Your task to perform on an android device: toggle location history Image 0: 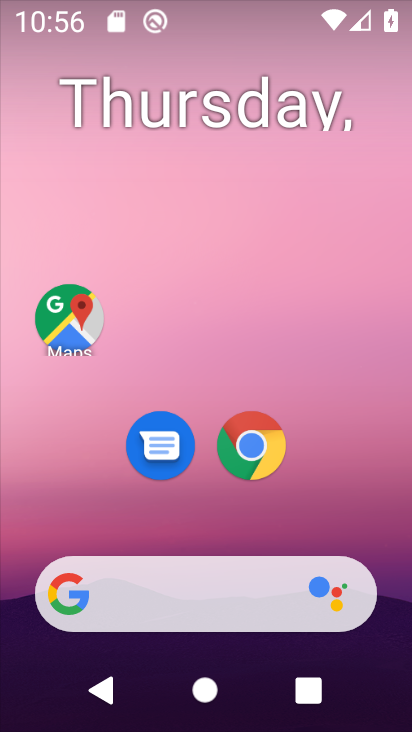
Step 0: drag from (337, 485) to (289, 78)
Your task to perform on an android device: toggle location history Image 1: 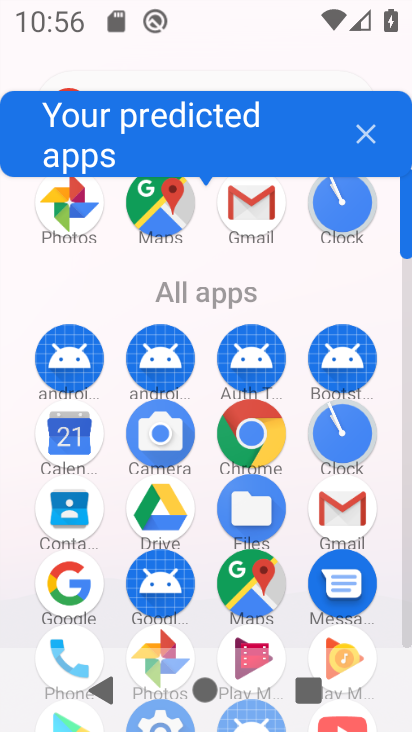
Step 1: drag from (203, 621) to (287, 231)
Your task to perform on an android device: toggle location history Image 2: 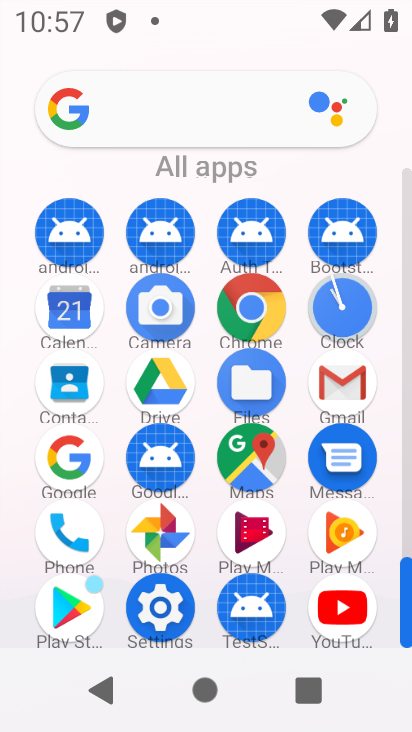
Step 2: click (174, 612)
Your task to perform on an android device: toggle location history Image 3: 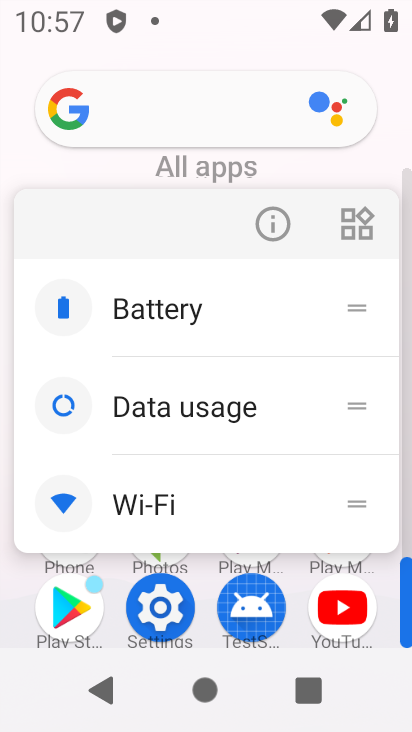
Step 3: click (152, 618)
Your task to perform on an android device: toggle location history Image 4: 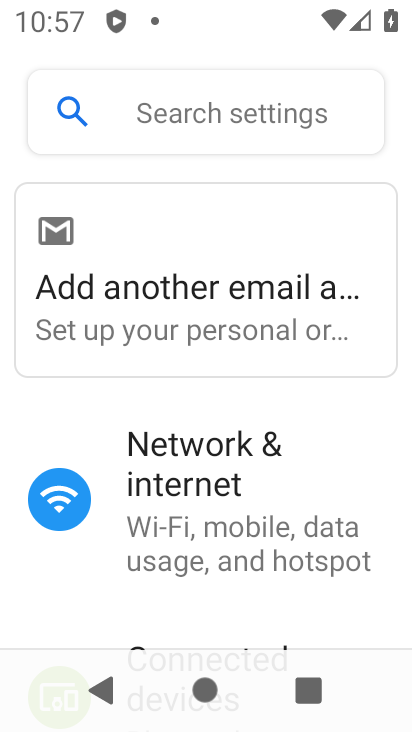
Step 4: drag from (273, 569) to (361, 211)
Your task to perform on an android device: toggle location history Image 5: 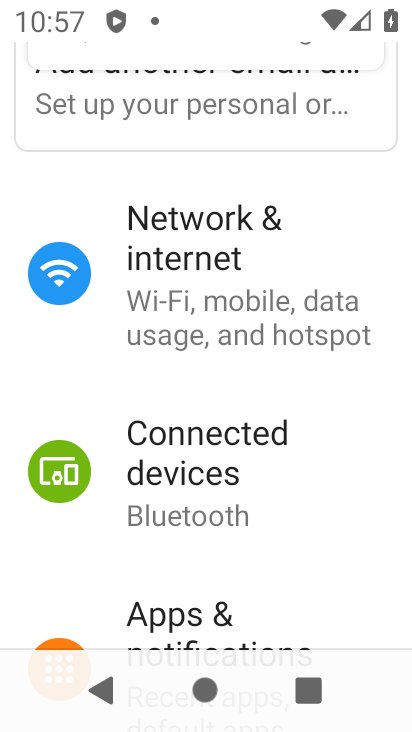
Step 5: drag from (292, 481) to (328, 195)
Your task to perform on an android device: toggle location history Image 6: 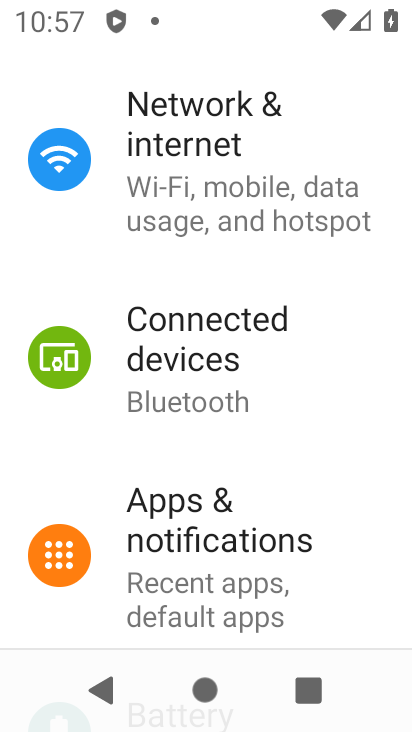
Step 6: drag from (257, 525) to (271, 220)
Your task to perform on an android device: toggle location history Image 7: 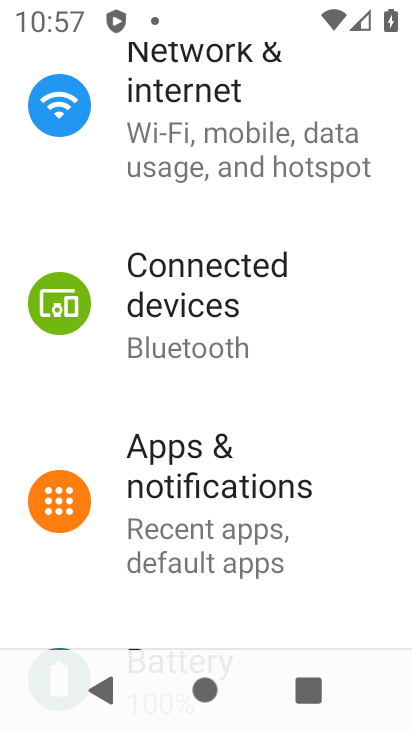
Step 7: drag from (241, 536) to (399, 245)
Your task to perform on an android device: toggle location history Image 8: 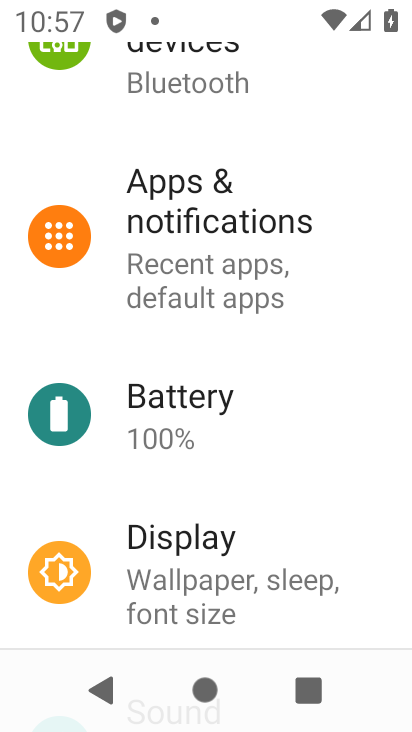
Step 8: drag from (240, 518) to (290, 201)
Your task to perform on an android device: toggle location history Image 9: 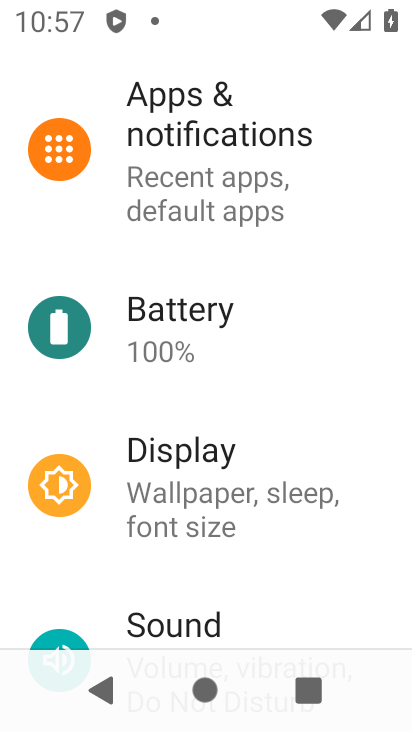
Step 9: drag from (241, 599) to (284, 106)
Your task to perform on an android device: toggle location history Image 10: 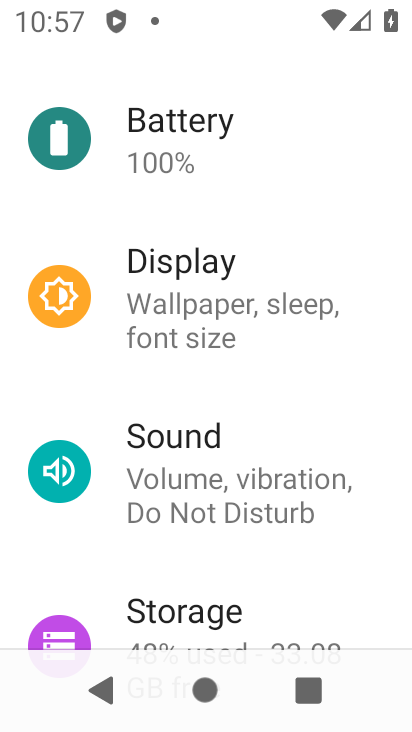
Step 10: drag from (181, 543) to (334, 135)
Your task to perform on an android device: toggle location history Image 11: 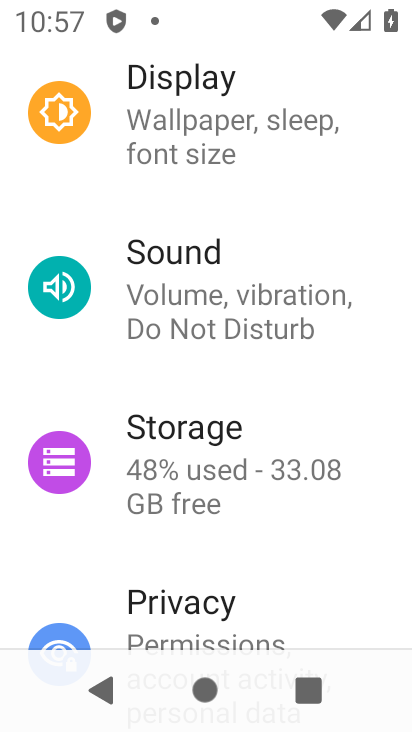
Step 11: drag from (256, 493) to (273, 223)
Your task to perform on an android device: toggle location history Image 12: 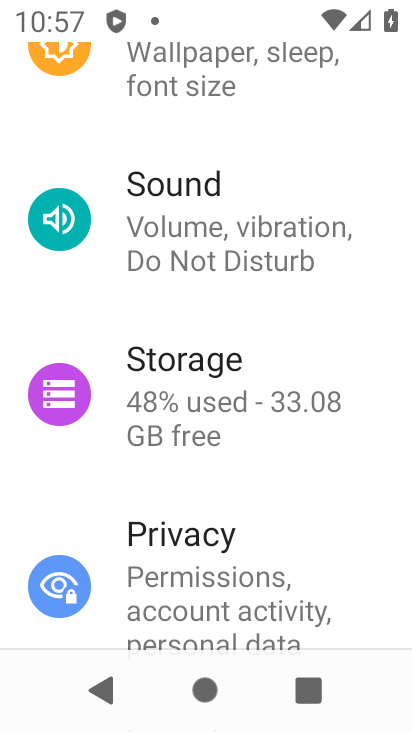
Step 12: drag from (273, 223) to (282, 613)
Your task to perform on an android device: toggle location history Image 13: 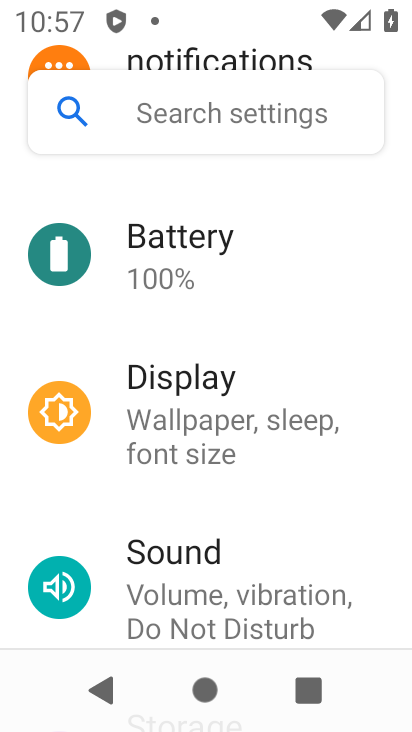
Step 13: drag from (254, 279) to (264, 618)
Your task to perform on an android device: toggle location history Image 14: 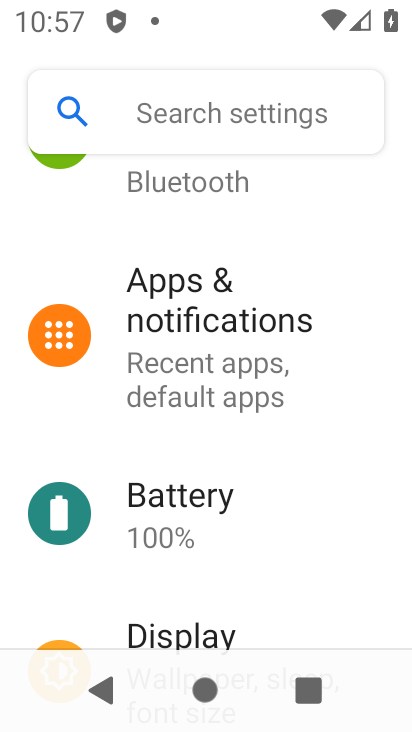
Step 14: drag from (266, 613) to (319, 106)
Your task to perform on an android device: toggle location history Image 15: 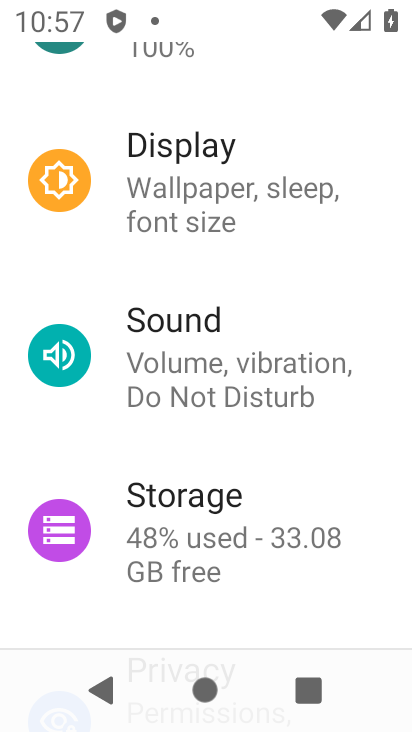
Step 15: drag from (241, 539) to (319, 184)
Your task to perform on an android device: toggle location history Image 16: 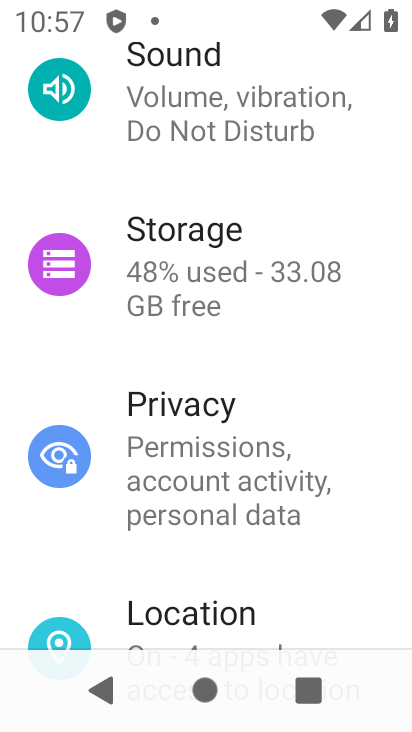
Step 16: drag from (252, 550) to (288, 380)
Your task to perform on an android device: toggle location history Image 17: 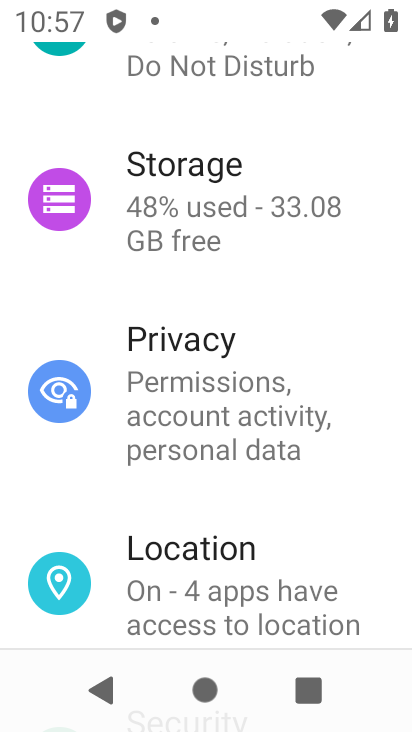
Step 17: click (201, 570)
Your task to perform on an android device: toggle location history Image 18: 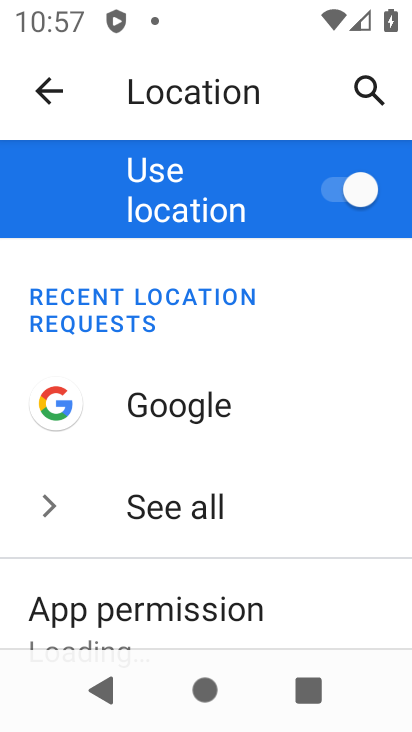
Step 18: drag from (320, 526) to (322, 42)
Your task to perform on an android device: toggle location history Image 19: 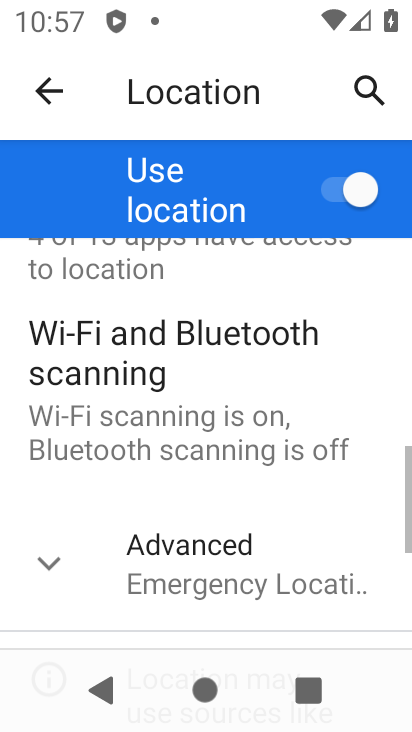
Step 19: click (209, 549)
Your task to perform on an android device: toggle location history Image 20: 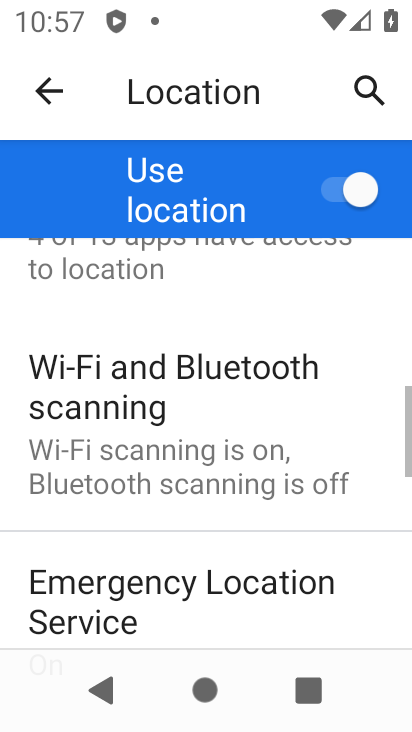
Step 20: drag from (337, 413) to (299, 98)
Your task to perform on an android device: toggle location history Image 21: 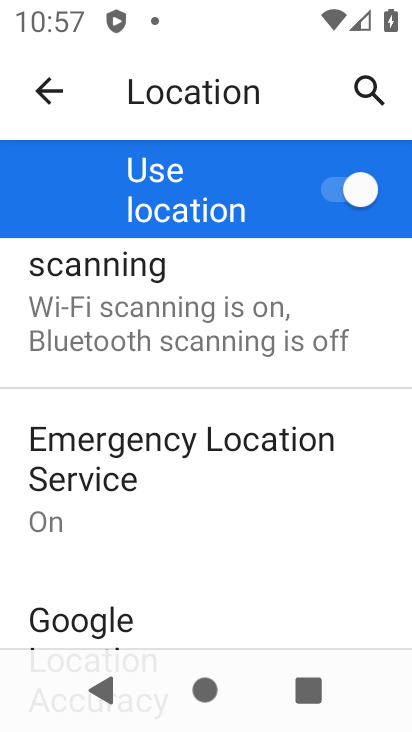
Step 21: drag from (230, 517) to (277, 202)
Your task to perform on an android device: toggle location history Image 22: 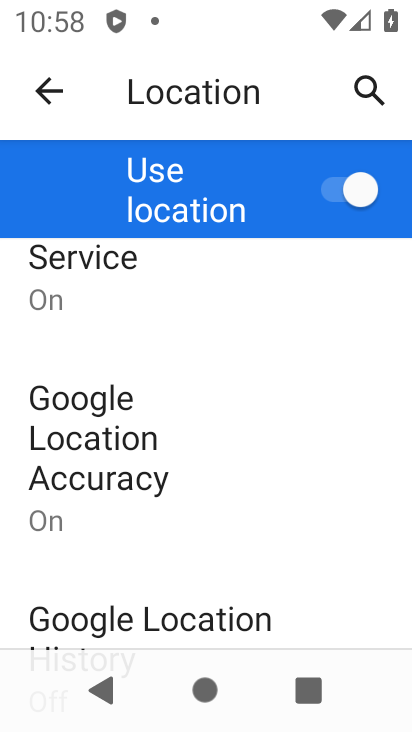
Step 22: click (198, 617)
Your task to perform on an android device: toggle location history Image 23: 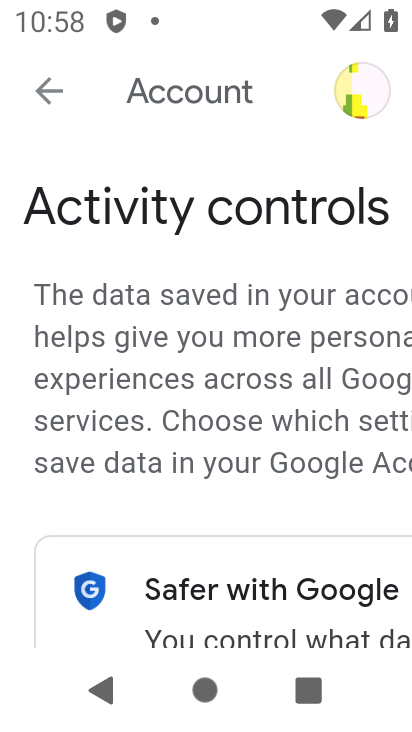
Step 23: drag from (205, 560) to (214, 113)
Your task to perform on an android device: toggle location history Image 24: 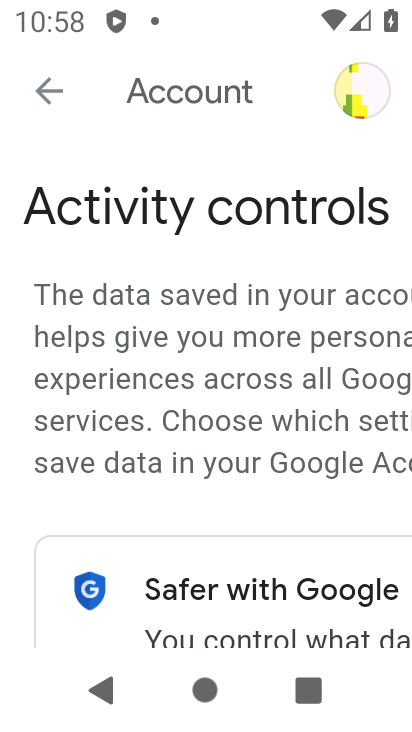
Step 24: drag from (272, 544) to (280, 194)
Your task to perform on an android device: toggle location history Image 25: 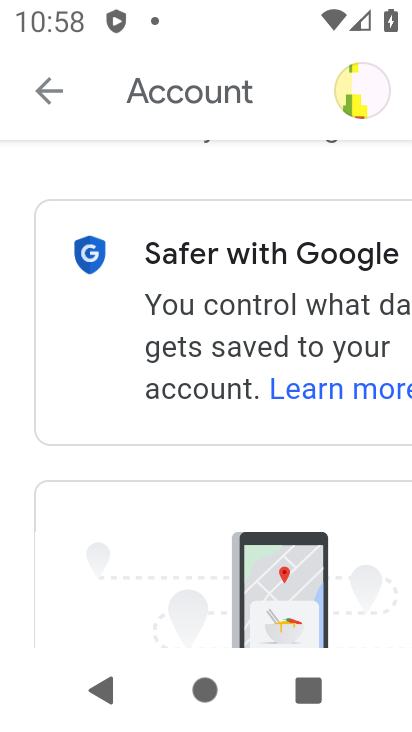
Step 25: drag from (196, 577) to (235, 202)
Your task to perform on an android device: toggle location history Image 26: 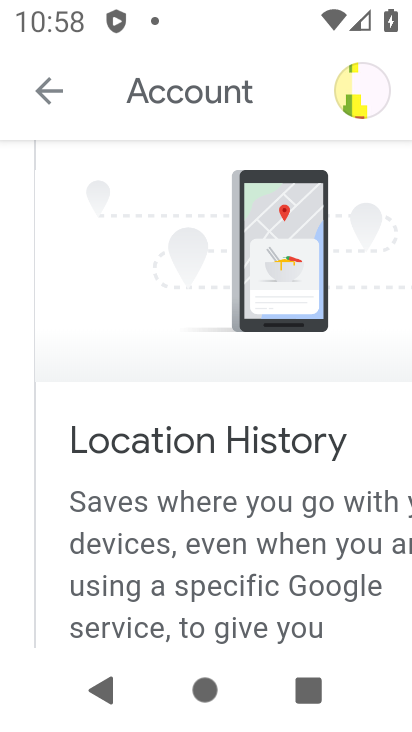
Step 26: drag from (233, 607) to (288, 264)
Your task to perform on an android device: toggle location history Image 27: 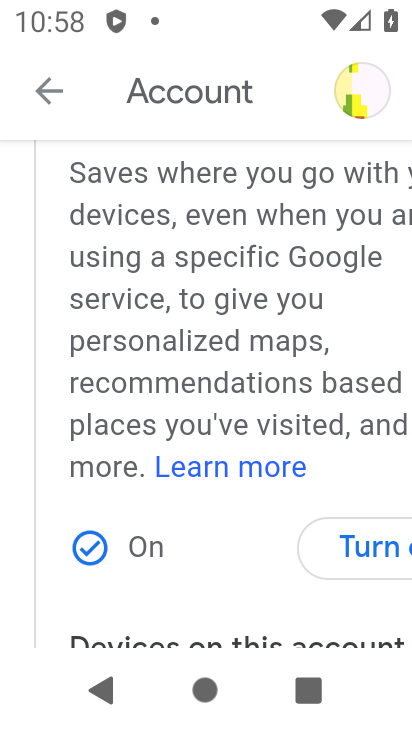
Step 27: click (379, 548)
Your task to perform on an android device: toggle location history Image 28: 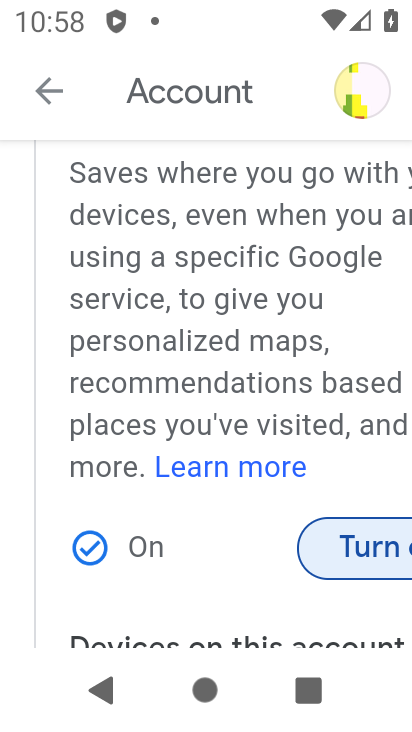
Step 28: click (379, 548)
Your task to perform on an android device: toggle location history Image 29: 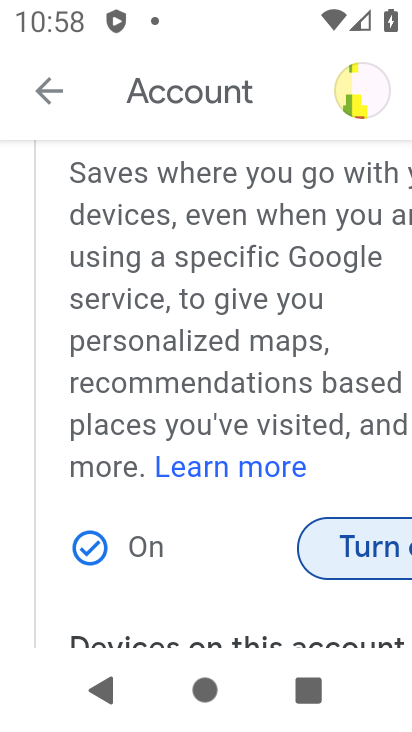
Step 29: click (379, 546)
Your task to perform on an android device: toggle location history Image 30: 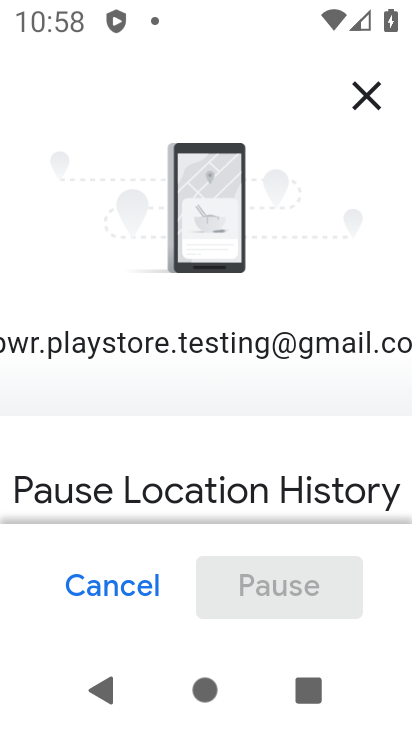
Step 30: drag from (331, 424) to (286, 6)
Your task to perform on an android device: toggle location history Image 31: 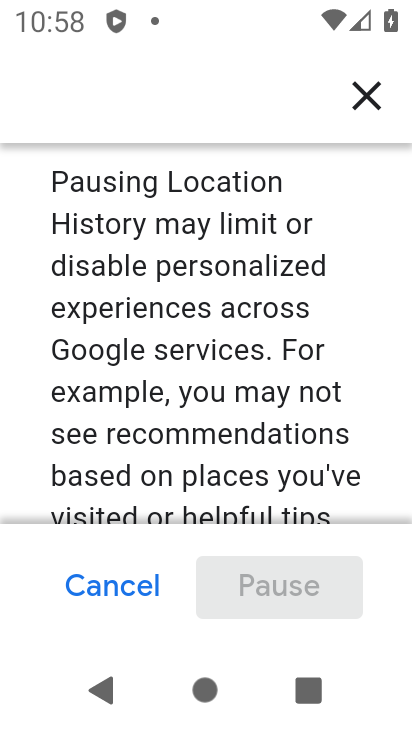
Step 31: drag from (246, 476) to (291, 82)
Your task to perform on an android device: toggle location history Image 32: 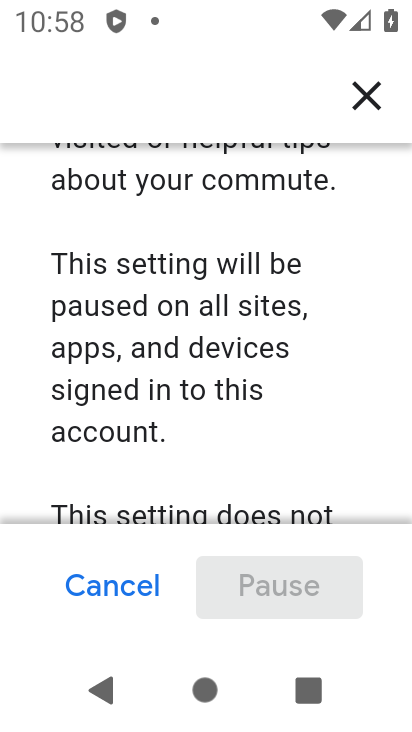
Step 32: drag from (249, 395) to (283, 68)
Your task to perform on an android device: toggle location history Image 33: 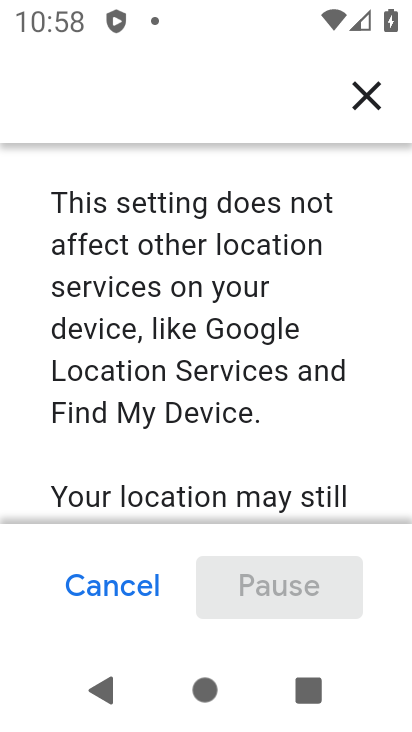
Step 33: drag from (263, 454) to (305, 91)
Your task to perform on an android device: toggle location history Image 34: 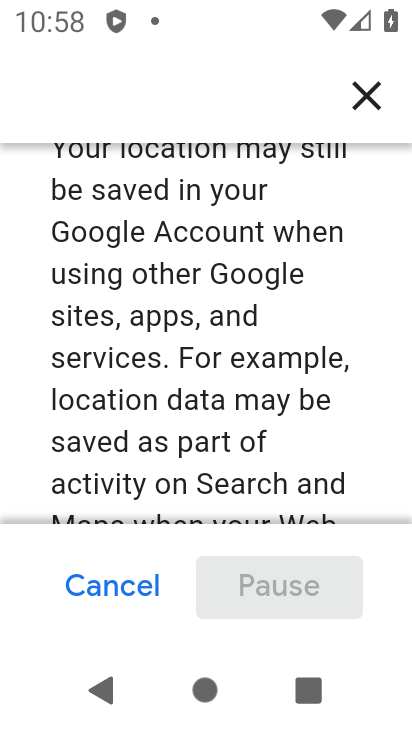
Step 34: drag from (256, 463) to (407, 10)
Your task to perform on an android device: toggle location history Image 35: 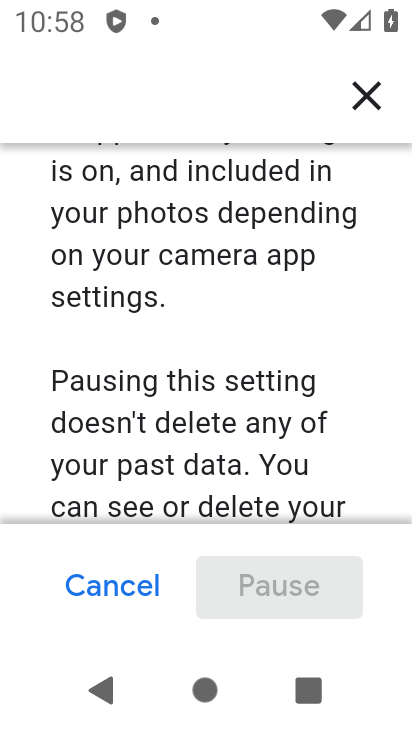
Step 35: drag from (257, 458) to (306, 17)
Your task to perform on an android device: toggle location history Image 36: 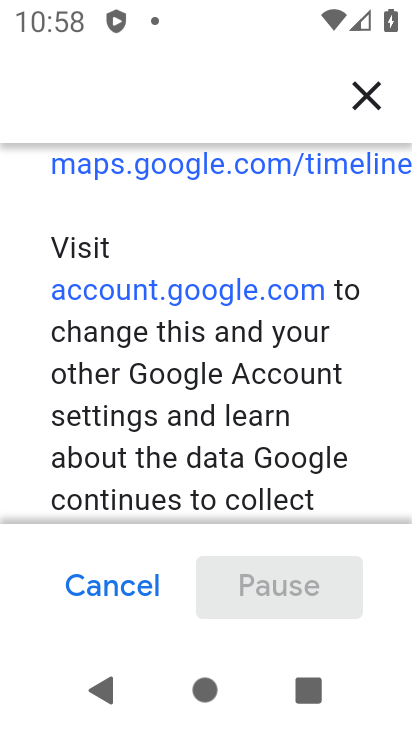
Step 36: drag from (290, 110) to (324, 1)
Your task to perform on an android device: toggle location history Image 37: 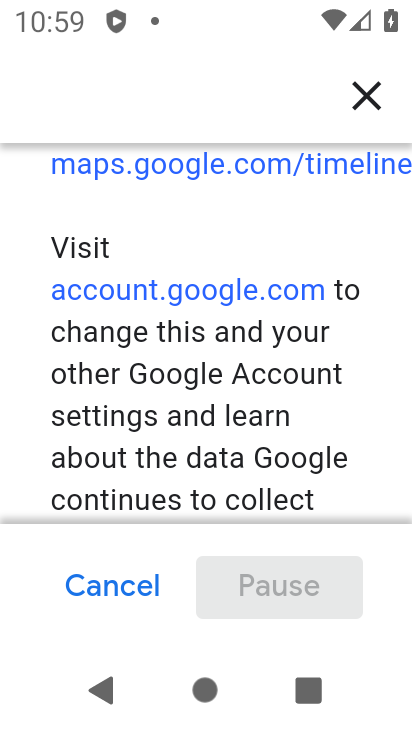
Step 37: drag from (273, 381) to (318, 49)
Your task to perform on an android device: toggle location history Image 38: 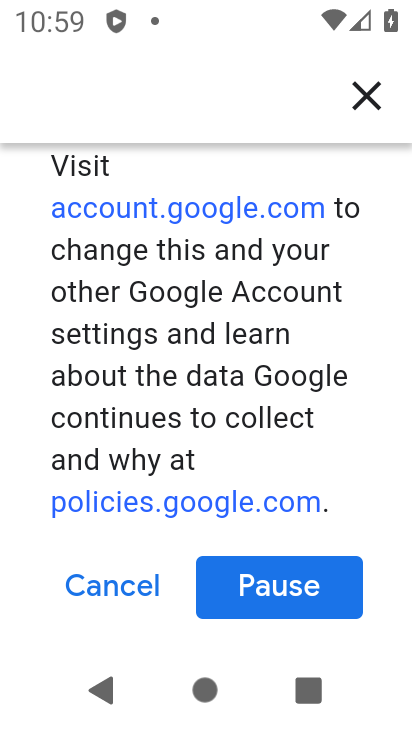
Step 38: click (289, 581)
Your task to perform on an android device: toggle location history Image 39: 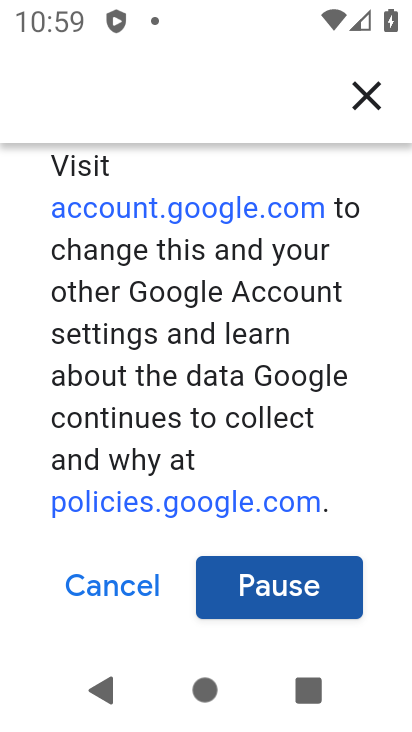
Step 39: click (293, 595)
Your task to perform on an android device: toggle location history Image 40: 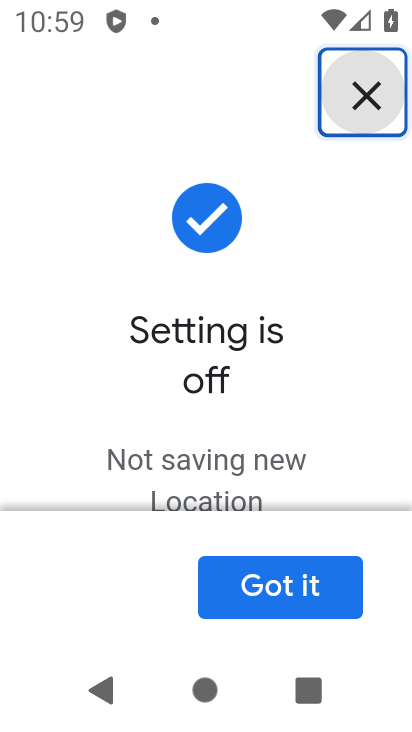
Step 40: task complete